Your task to perform on an android device: Open the map Image 0: 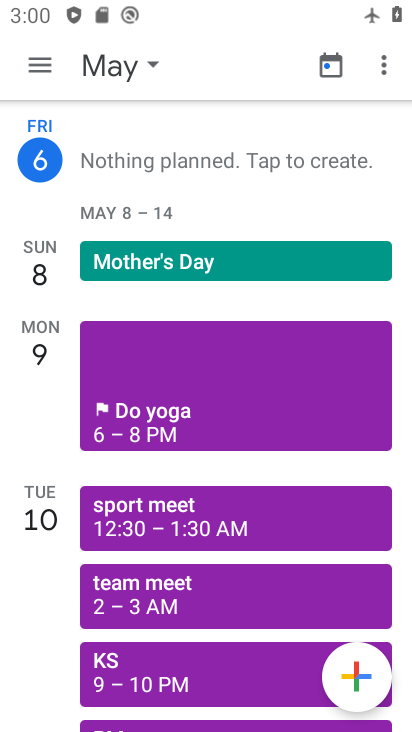
Step 0: press home button
Your task to perform on an android device: Open the map Image 1: 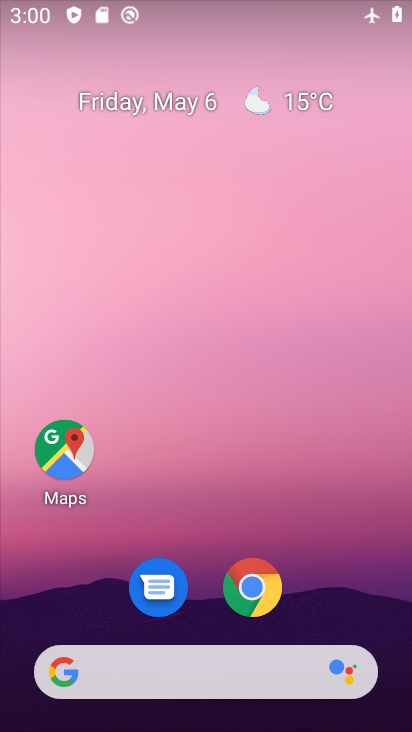
Step 1: drag from (212, 612) to (210, 119)
Your task to perform on an android device: Open the map Image 2: 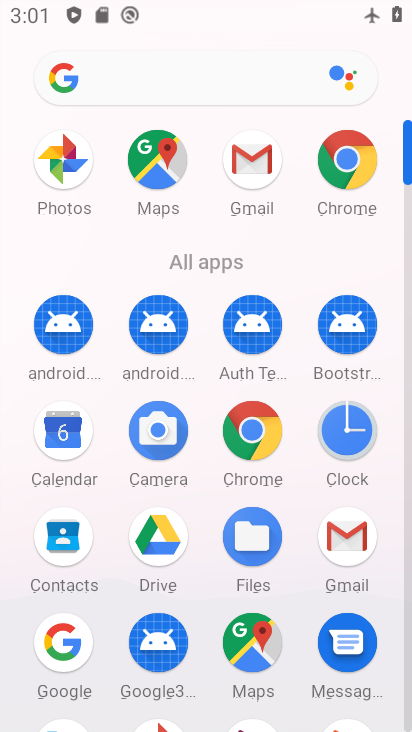
Step 2: click (154, 161)
Your task to perform on an android device: Open the map Image 3: 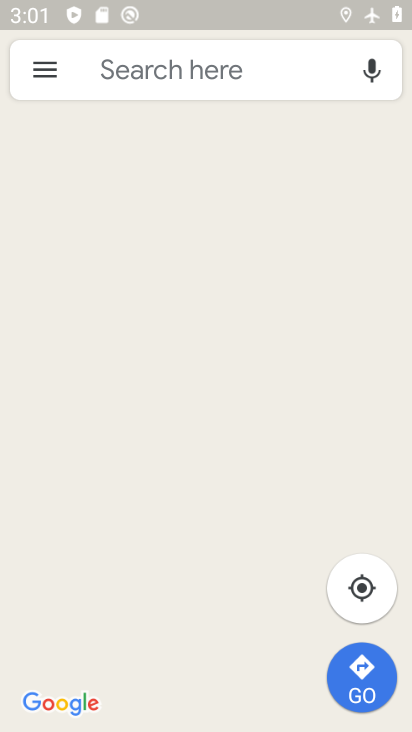
Step 3: task complete